Your task to perform on an android device: find photos in the google photos app Image 0: 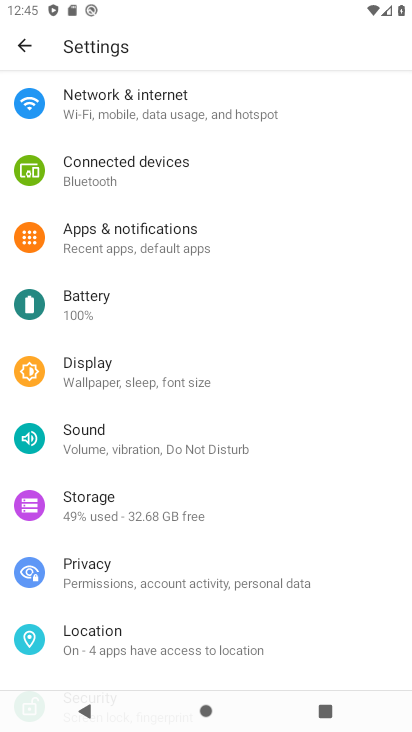
Step 0: press home button
Your task to perform on an android device: find photos in the google photos app Image 1: 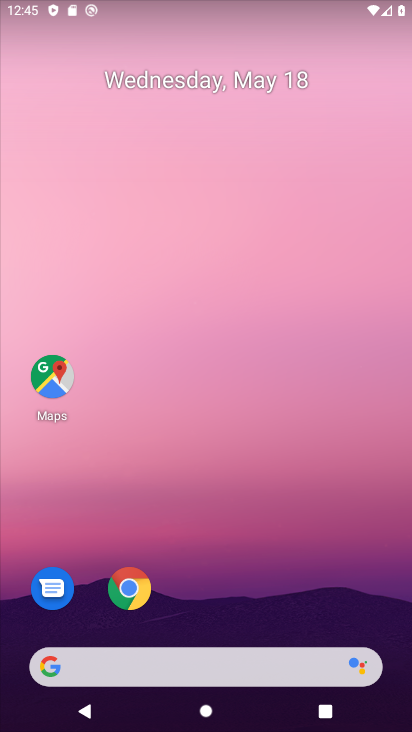
Step 1: drag from (364, 605) to (346, 101)
Your task to perform on an android device: find photos in the google photos app Image 2: 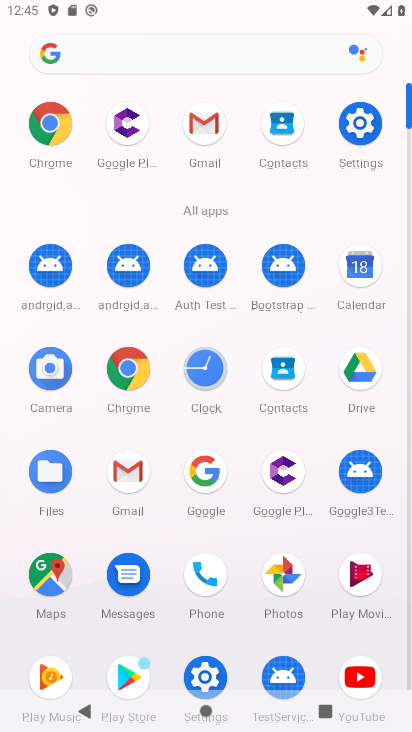
Step 2: click (292, 574)
Your task to perform on an android device: find photos in the google photos app Image 3: 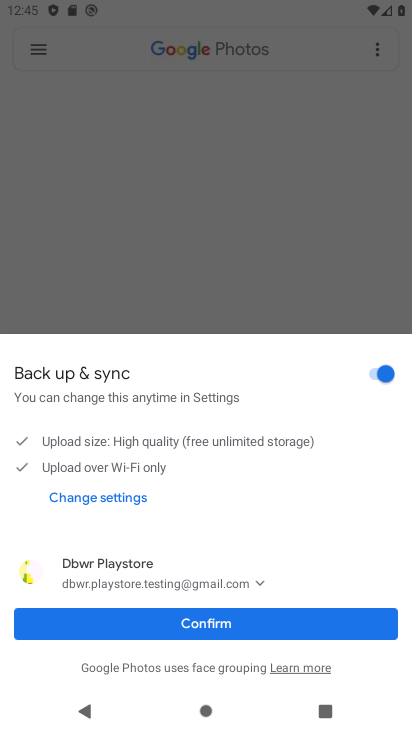
Step 3: click (255, 624)
Your task to perform on an android device: find photos in the google photos app Image 4: 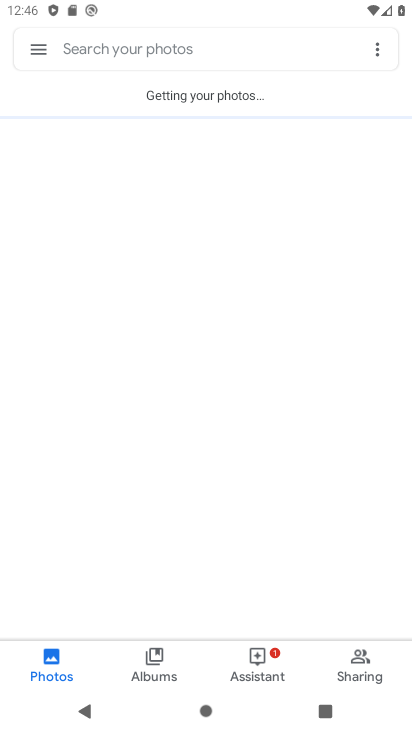
Step 4: task complete